Your task to perform on an android device: set an alarm Image 0: 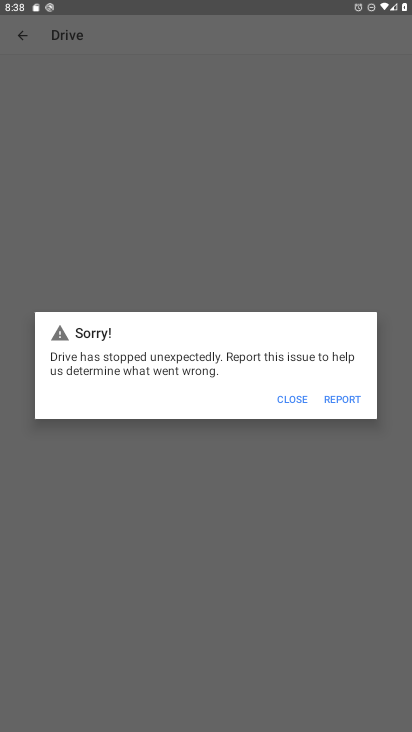
Step 0: press home button
Your task to perform on an android device: set an alarm Image 1: 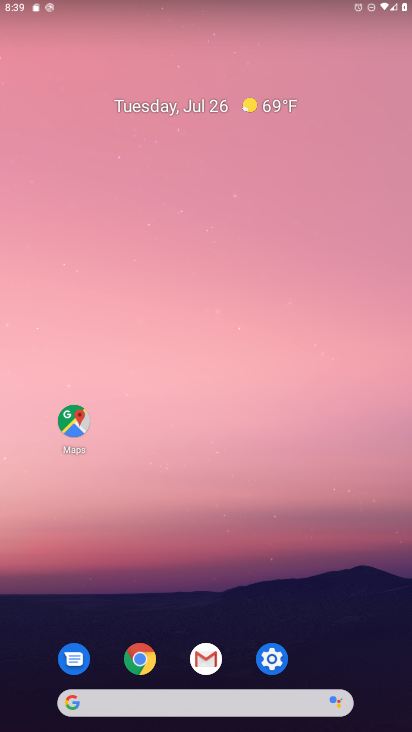
Step 1: drag from (253, 715) to (199, 127)
Your task to perform on an android device: set an alarm Image 2: 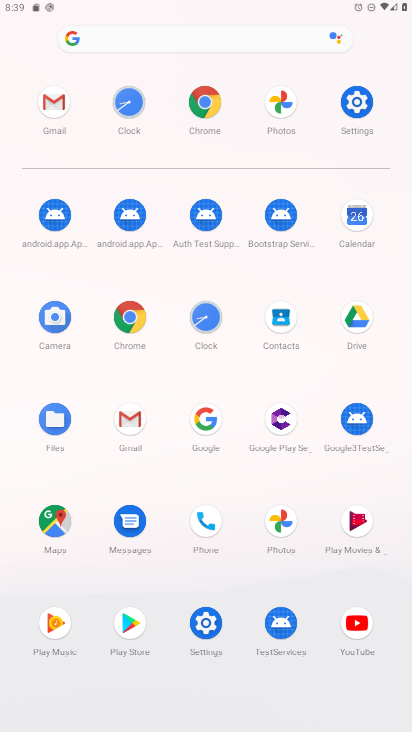
Step 2: click (208, 309)
Your task to perform on an android device: set an alarm Image 3: 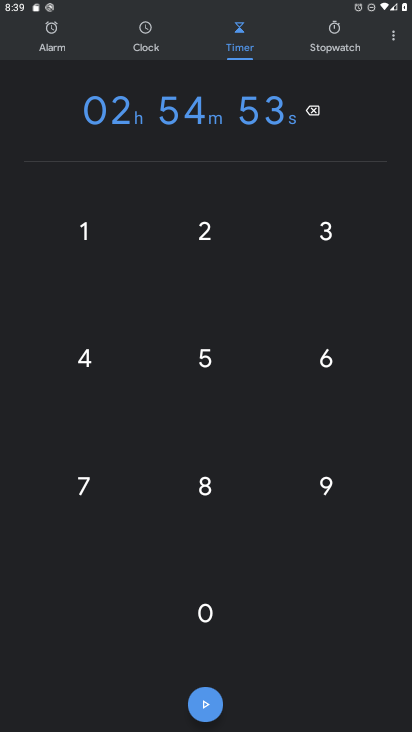
Step 3: click (53, 47)
Your task to perform on an android device: set an alarm Image 4: 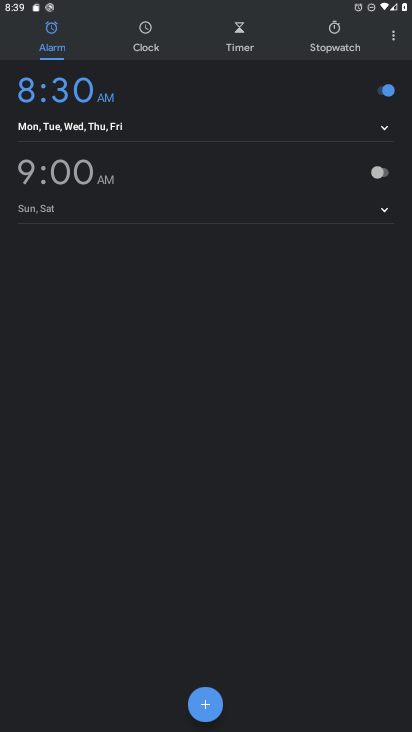
Step 4: click (377, 180)
Your task to perform on an android device: set an alarm Image 5: 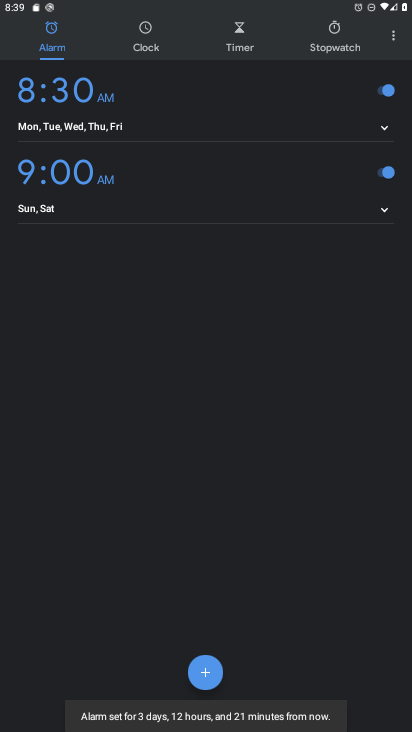
Step 5: task complete